Your task to perform on an android device: toggle show notifications on the lock screen Image 0: 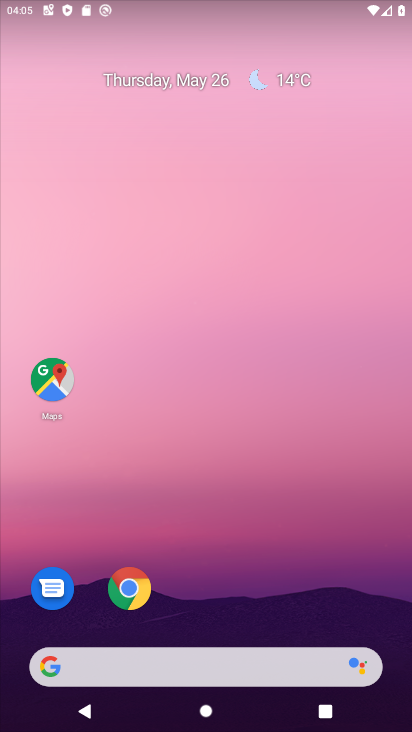
Step 0: drag from (292, 576) to (277, 132)
Your task to perform on an android device: toggle show notifications on the lock screen Image 1: 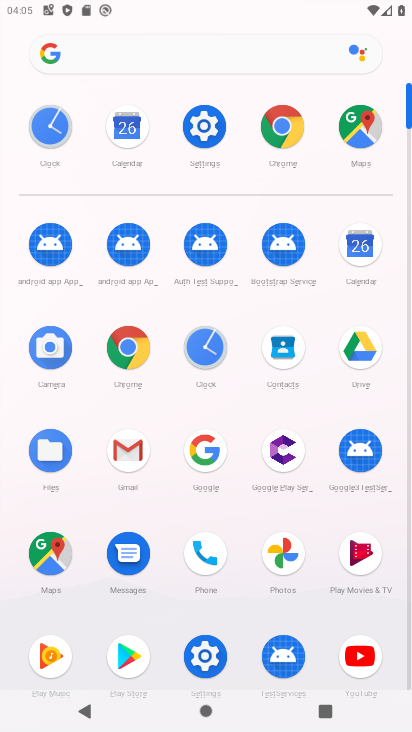
Step 1: click (213, 120)
Your task to perform on an android device: toggle show notifications on the lock screen Image 2: 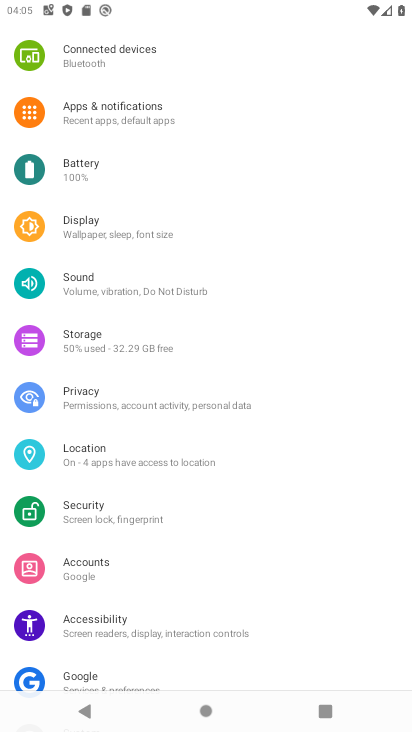
Step 2: drag from (126, 617) to (177, 392)
Your task to perform on an android device: toggle show notifications on the lock screen Image 3: 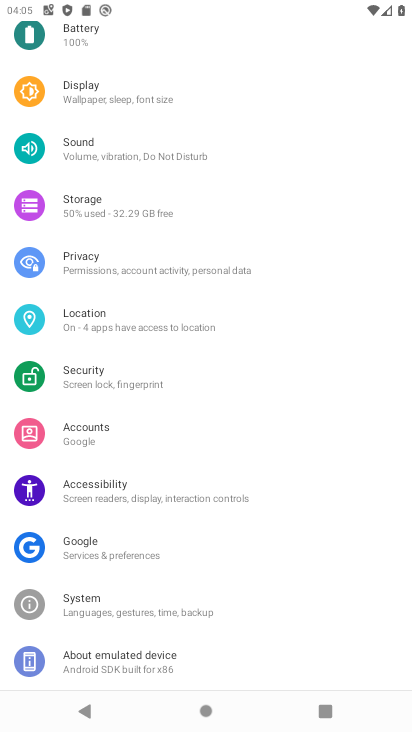
Step 3: drag from (219, 159) to (192, 534)
Your task to perform on an android device: toggle show notifications on the lock screen Image 4: 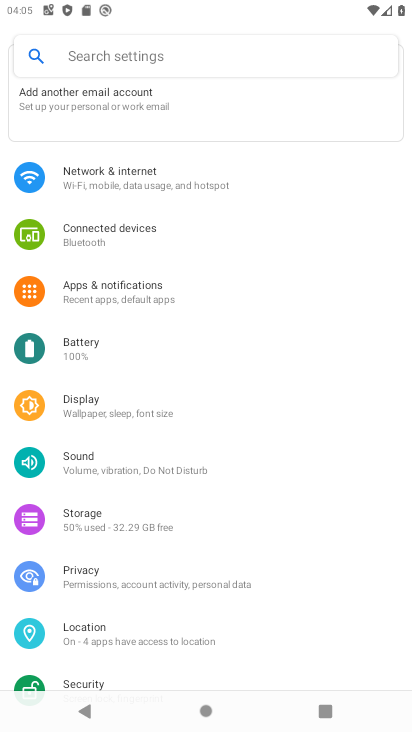
Step 4: click (165, 282)
Your task to perform on an android device: toggle show notifications on the lock screen Image 5: 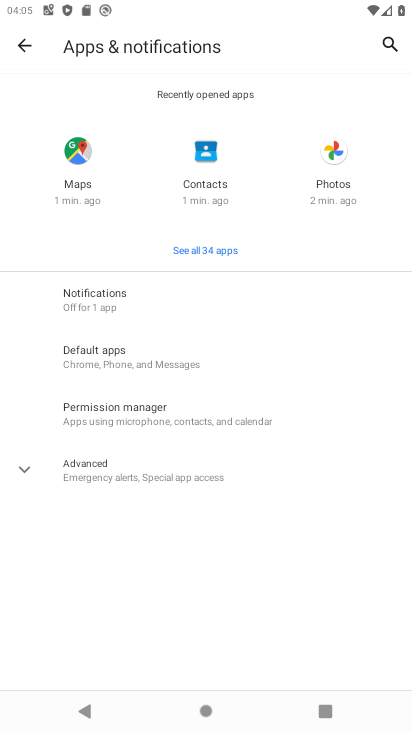
Step 5: click (114, 458)
Your task to perform on an android device: toggle show notifications on the lock screen Image 6: 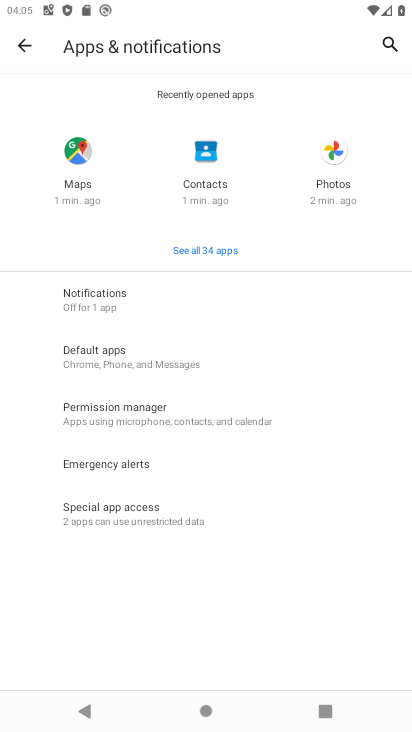
Step 6: click (117, 512)
Your task to perform on an android device: toggle show notifications on the lock screen Image 7: 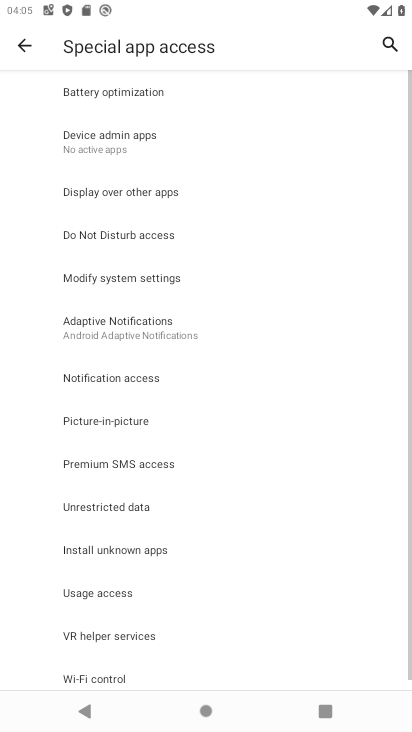
Step 7: click (21, 51)
Your task to perform on an android device: toggle show notifications on the lock screen Image 8: 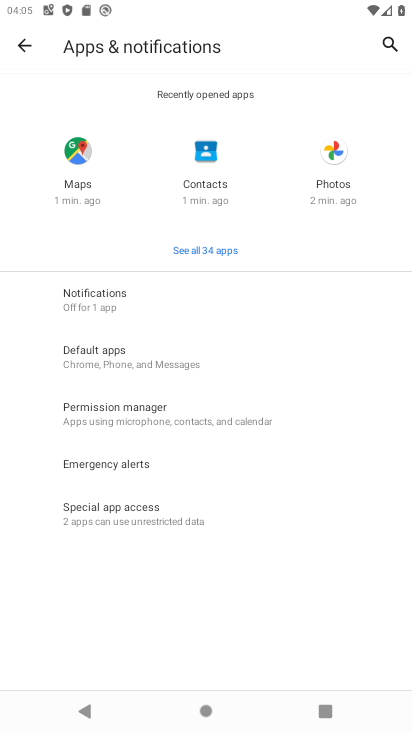
Step 8: click (166, 302)
Your task to perform on an android device: toggle show notifications on the lock screen Image 9: 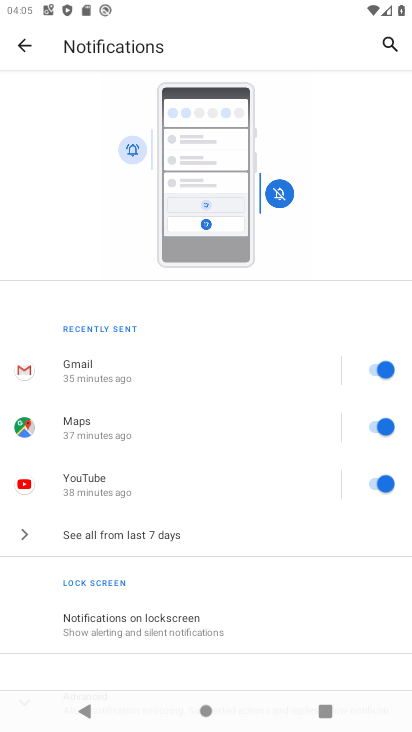
Step 9: click (159, 626)
Your task to perform on an android device: toggle show notifications on the lock screen Image 10: 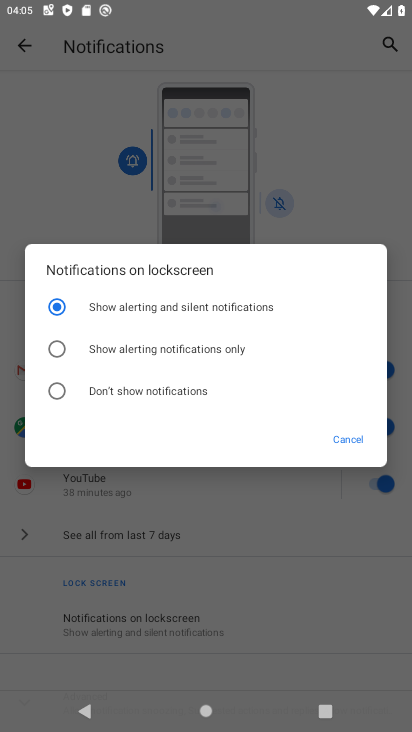
Step 10: click (219, 313)
Your task to perform on an android device: toggle show notifications on the lock screen Image 11: 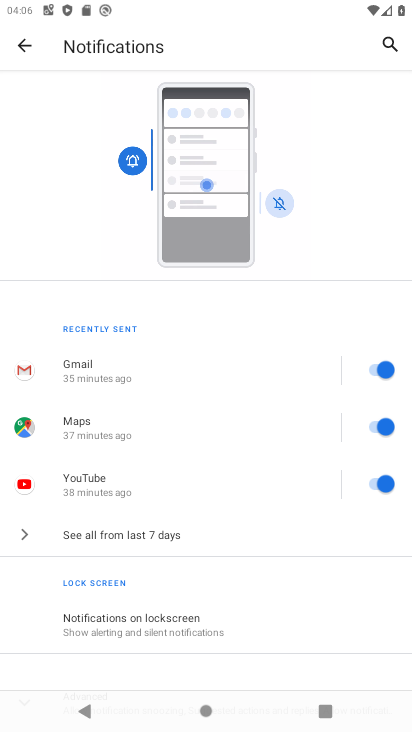
Step 11: task complete